Your task to perform on an android device: turn pop-ups on in chrome Image 0: 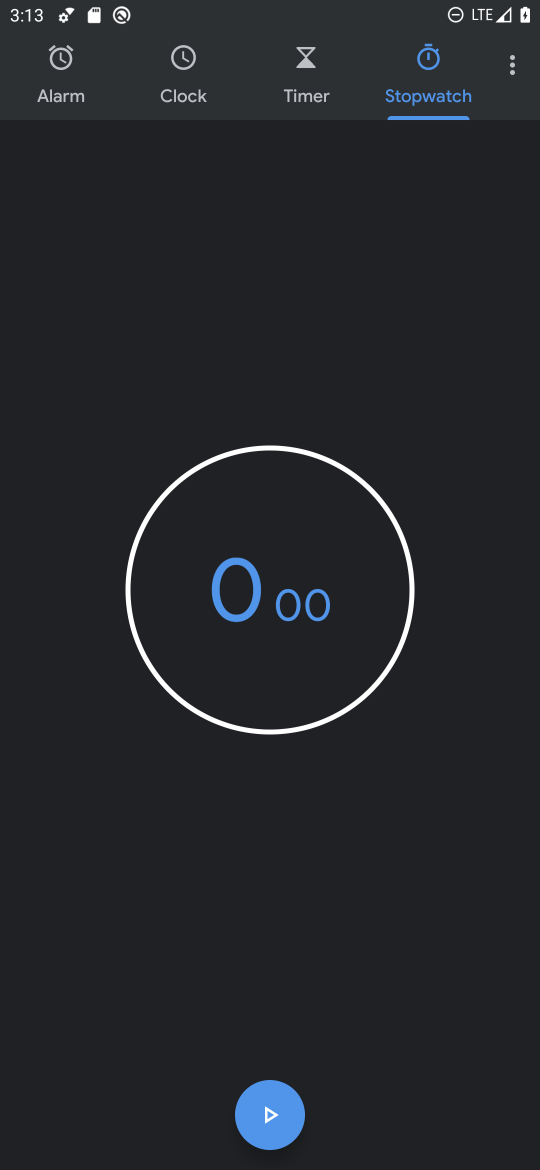
Step 0: press home button
Your task to perform on an android device: turn pop-ups on in chrome Image 1: 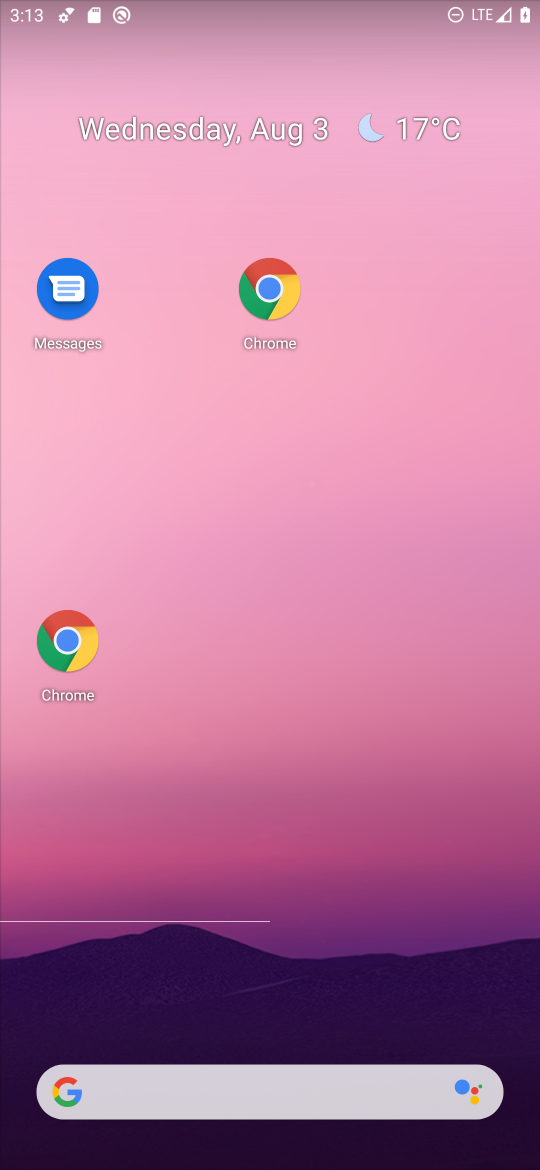
Step 1: click (60, 666)
Your task to perform on an android device: turn pop-ups on in chrome Image 2: 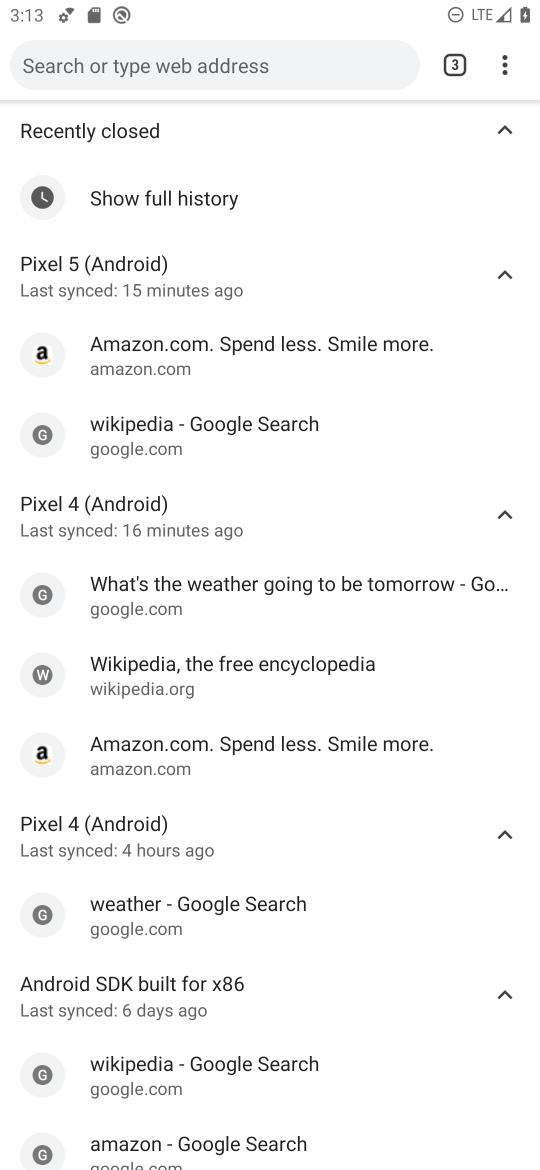
Step 2: click (506, 77)
Your task to perform on an android device: turn pop-ups on in chrome Image 3: 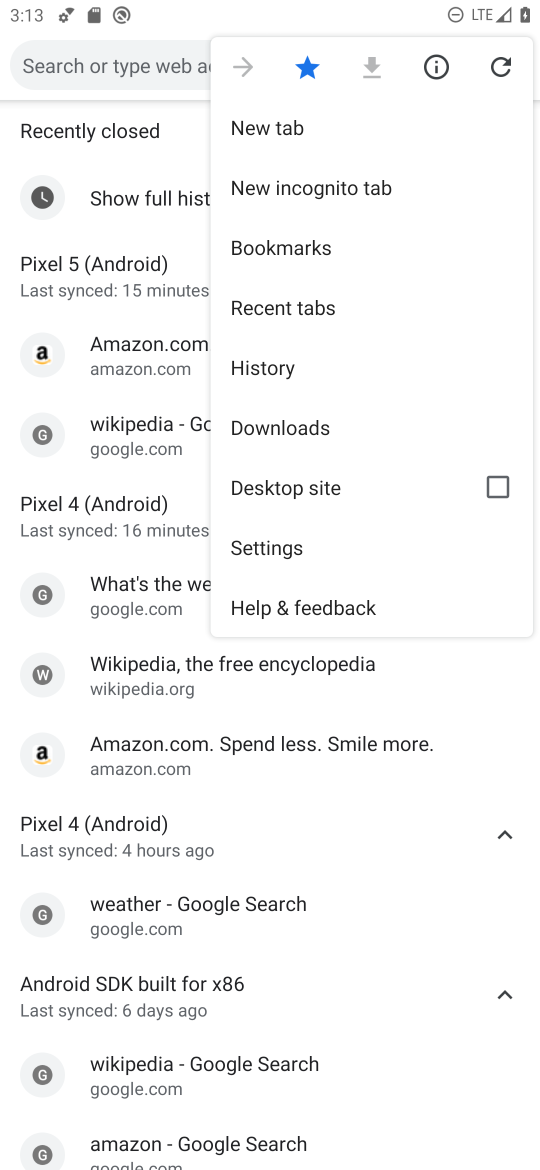
Step 3: click (292, 559)
Your task to perform on an android device: turn pop-ups on in chrome Image 4: 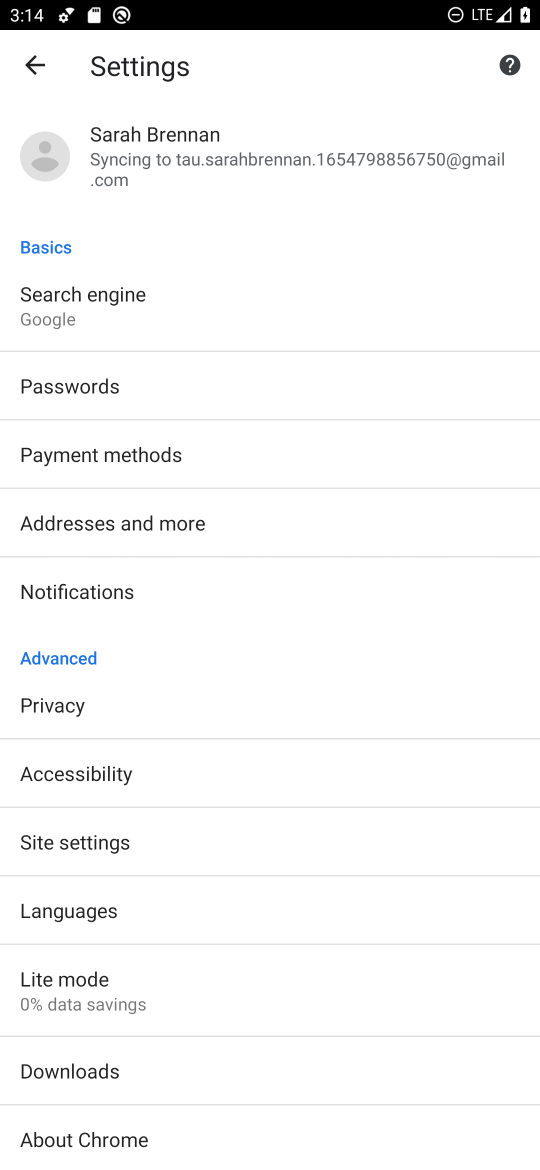
Step 4: click (181, 840)
Your task to perform on an android device: turn pop-ups on in chrome Image 5: 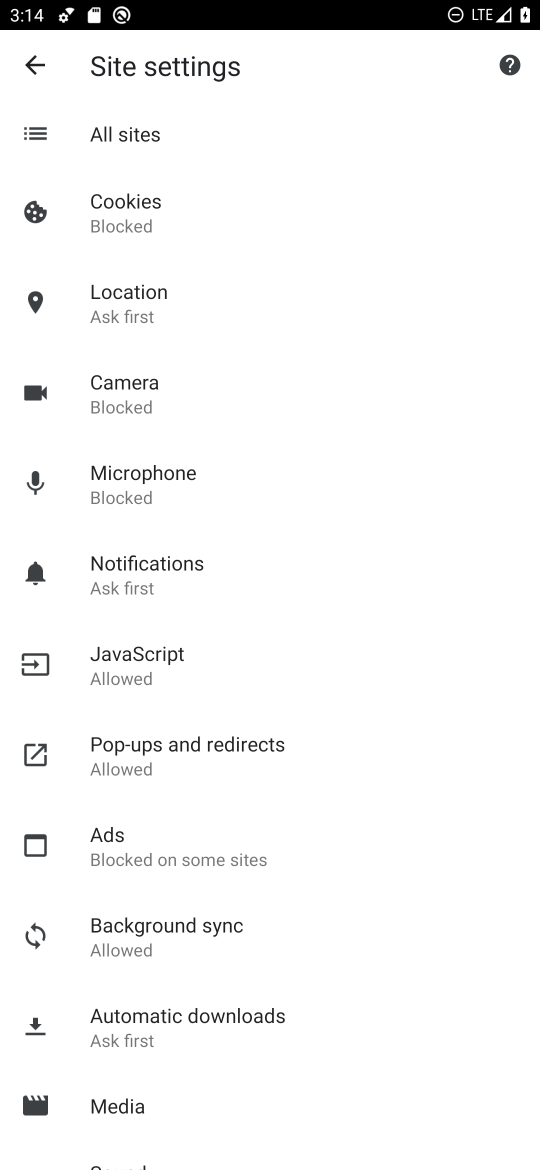
Step 5: click (273, 774)
Your task to perform on an android device: turn pop-ups on in chrome Image 6: 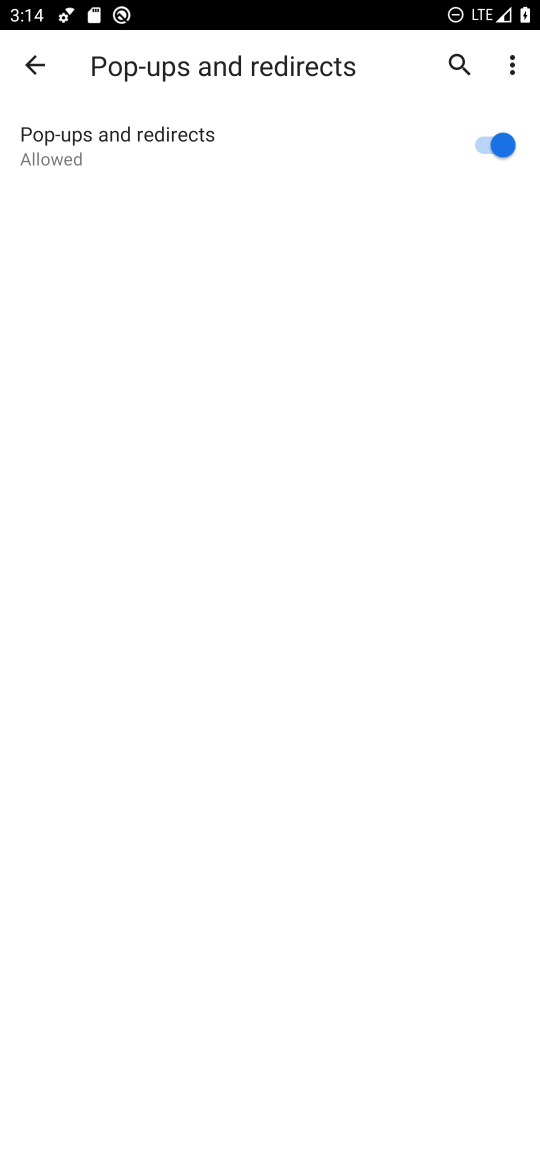
Step 6: task complete